Your task to perform on an android device: turn on translation in the chrome app Image 0: 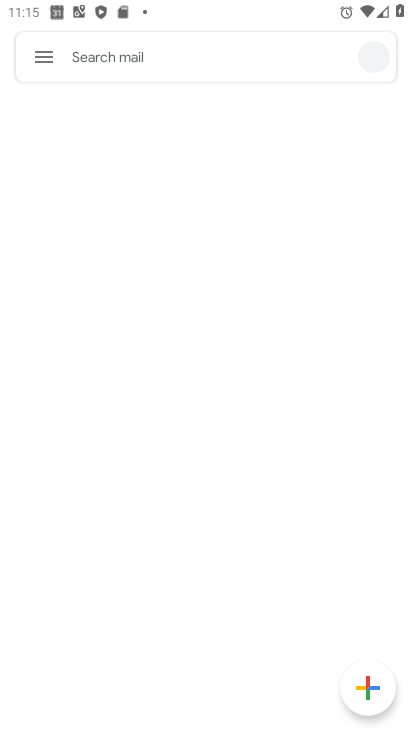
Step 0: click (51, 387)
Your task to perform on an android device: turn on translation in the chrome app Image 1: 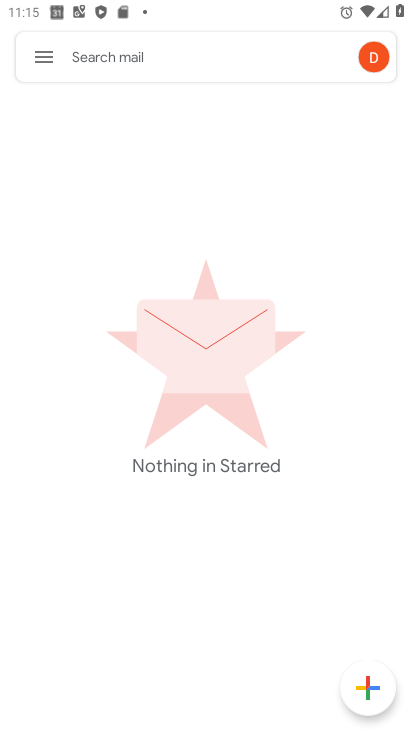
Step 1: press home button
Your task to perform on an android device: turn on translation in the chrome app Image 2: 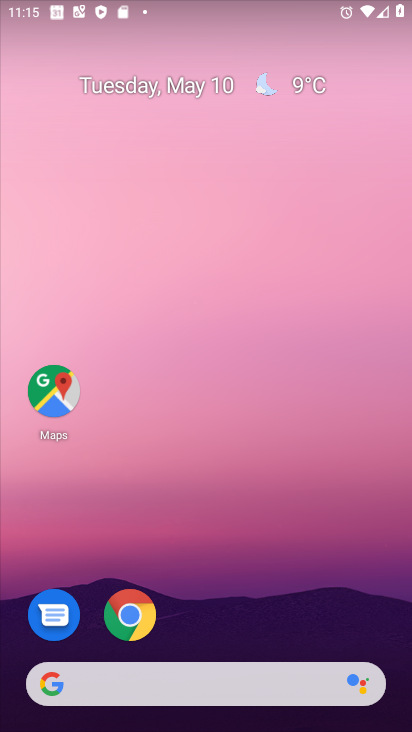
Step 2: drag from (215, 641) to (227, 152)
Your task to perform on an android device: turn on translation in the chrome app Image 3: 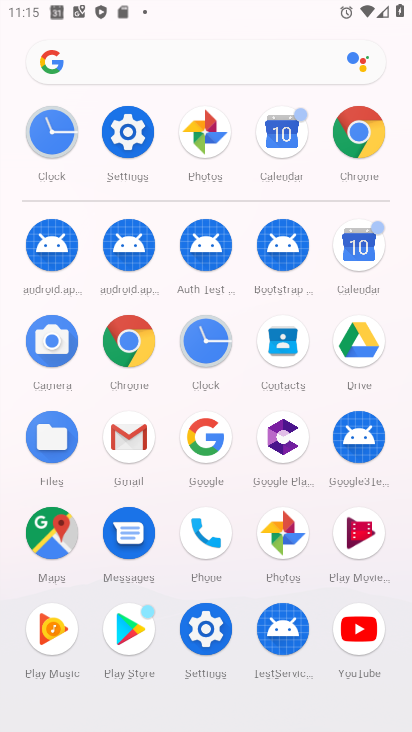
Step 3: click (125, 332)
Your task to perform on an android device: turn on translation in the chrome app Image 4: 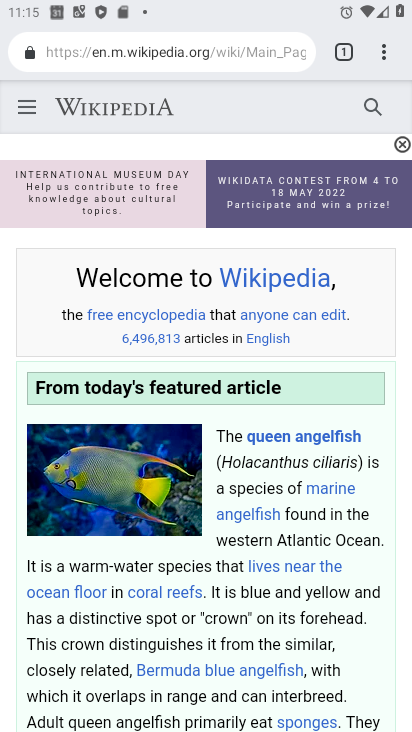
Step 4: click (382, 50)
Your task to perform on an android device: turn on translation in the chrome app Image 5: 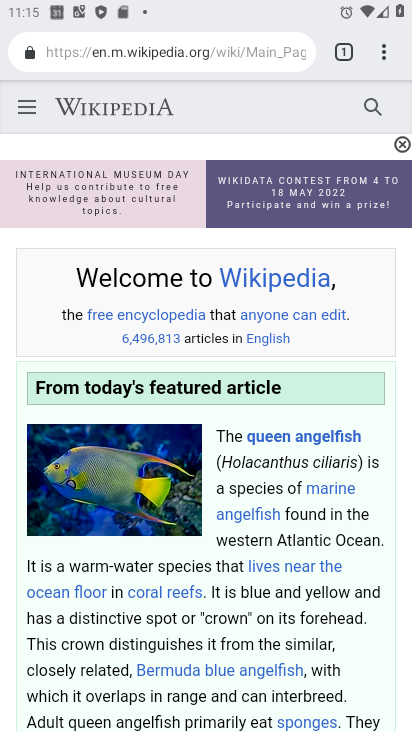
Step 5: click (382, 50)
Your task to perform on an android device: turn on translation in the chrome app Image 6: 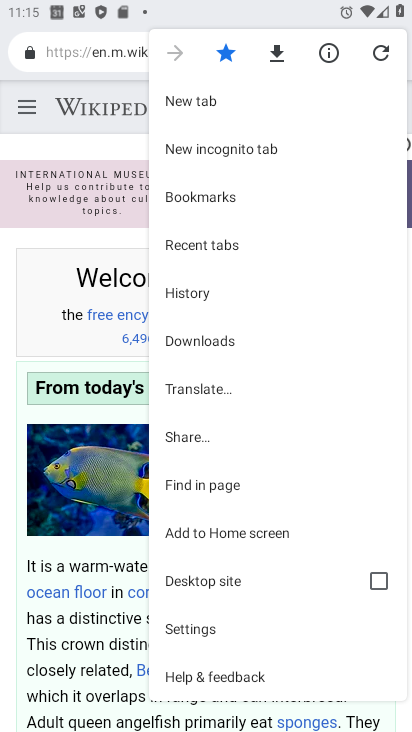
Step 6: click (227, 624)
Your task to perform on an android device: turn on translation in the chrome app Image 7: 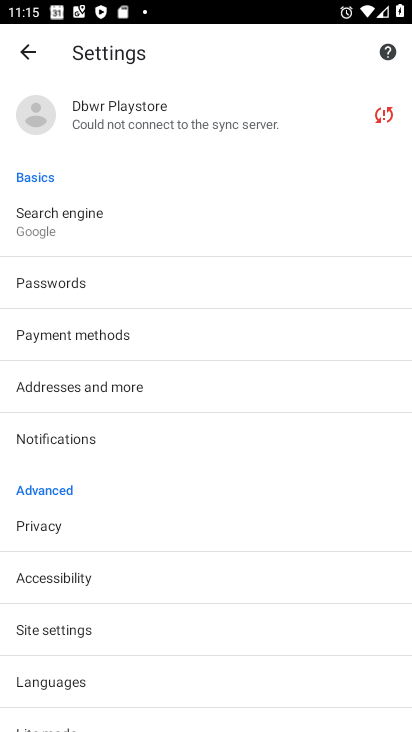
Step 7: click (97, 676)
Your task to perform on an android device: turn on translation in the chrome app Image 8: 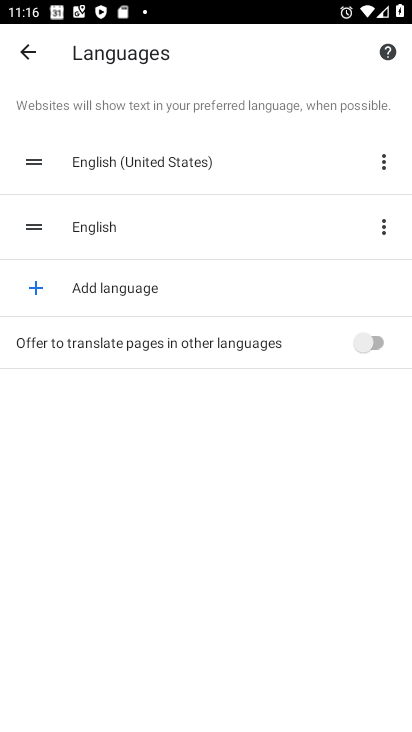
Step 8: click (366, 343)
Your task to perform on an android device: turn on translation in the chrome app Image 9: 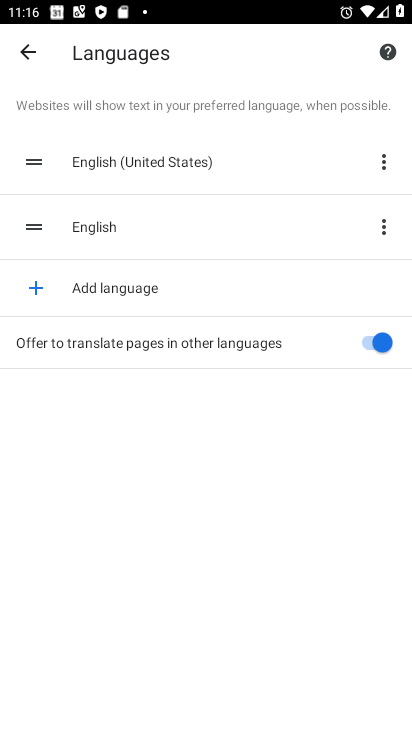
Step 9: task complete